Your task to perform on an android device: Open the calendar app, open the side menu, and click the "Day" option Image 0: 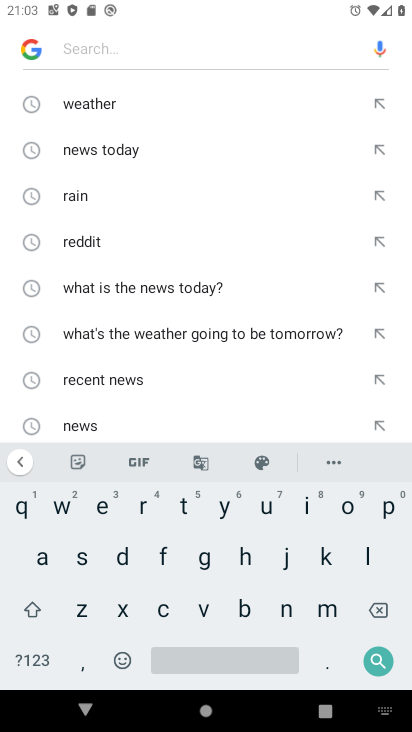
Step 0: press home button
Your task to perform on an android device: Open the calendar app, open the side menu, and click the "Day" option Image 1: 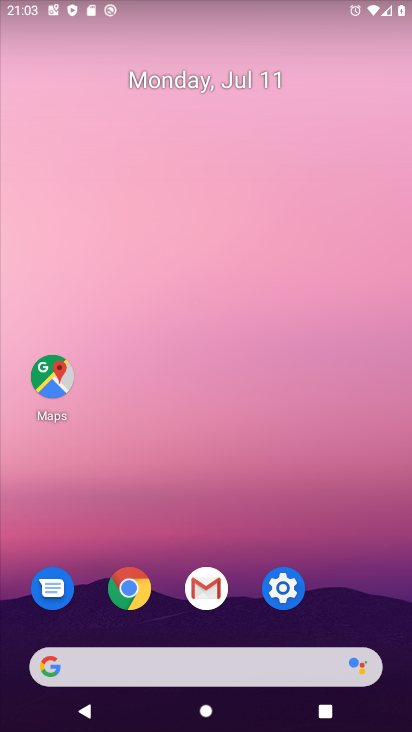
Step 1: drag from (232, 681) to (261, 137)
Your task to perform on an android device: Open the calendar app, open the side menu, and click the "Day" option Image 2: 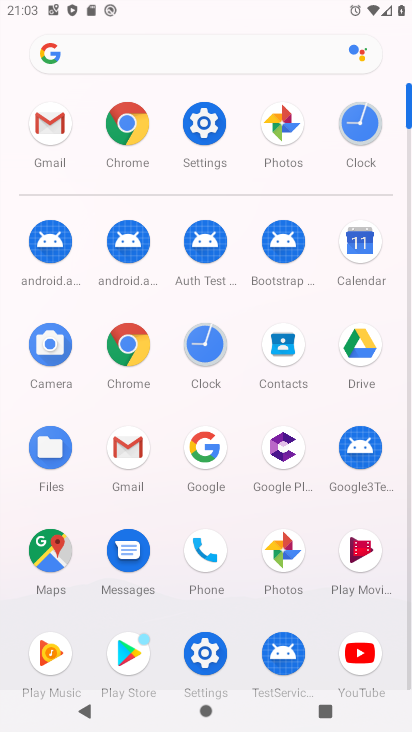
Step 2: click (361, 234)
Your task to perform on an android device: Open the calendar app, open the side menu, and click the "Day" option Image 3: 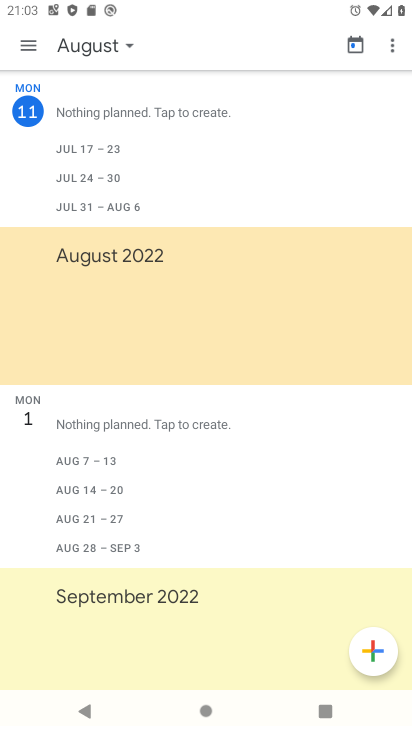
Step 3: click (33, 57)
Your task to perform on an android device: Open the calendar app, open the side menu, and click the "Day" option Image 4: 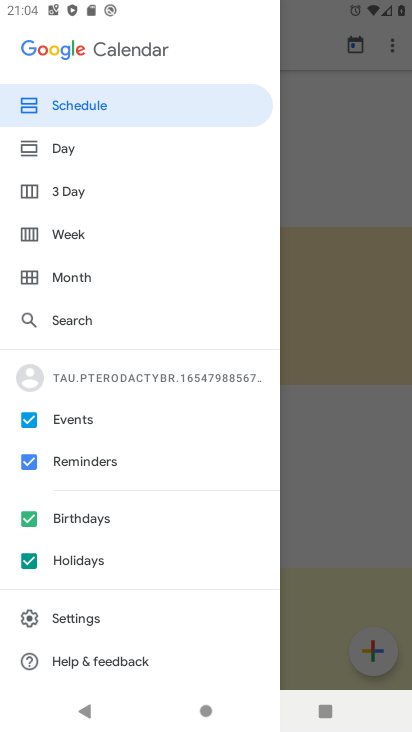
Step 4: click (73, 153)
Your task to perform on an android device: Open the calendar app, open the side menu, and click the "Day" option Image 5: 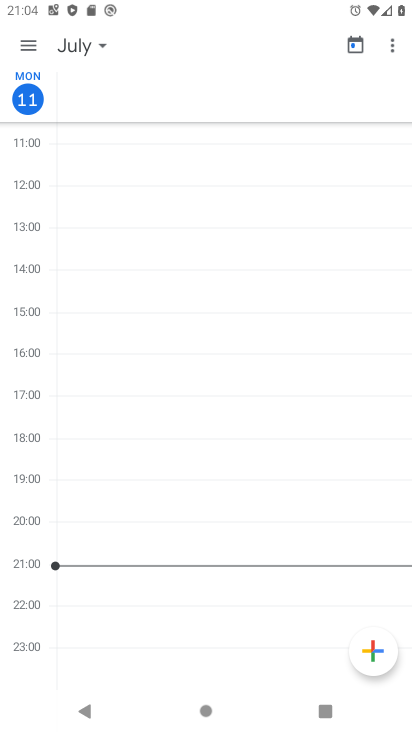
Step 5: task complete